Your task to perform on an android device: Open a new window in Chrome Image 0: 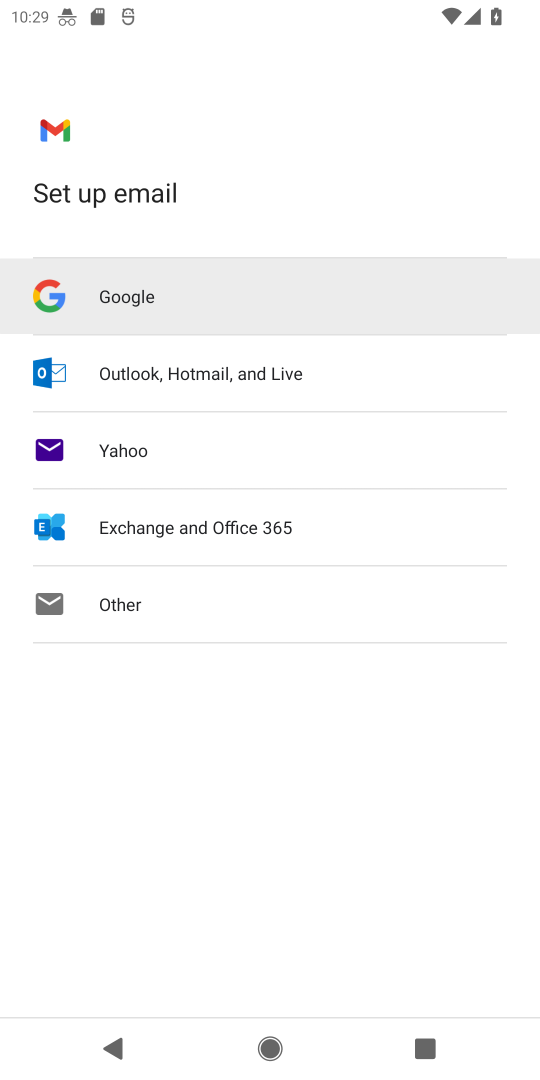
Step 0: press home button
Your task to perform on an android device: Open a new window in Chrome Image 1: 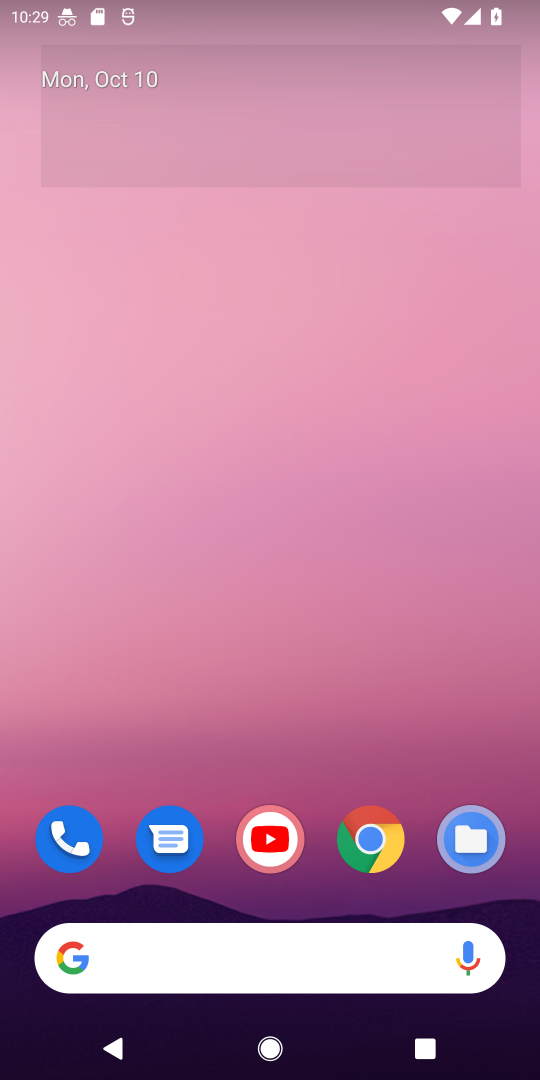
Step 1: drag from (316, 889) to (188, 218)
Your task to perform on an android device: Open a new window in Chrome Image 2: 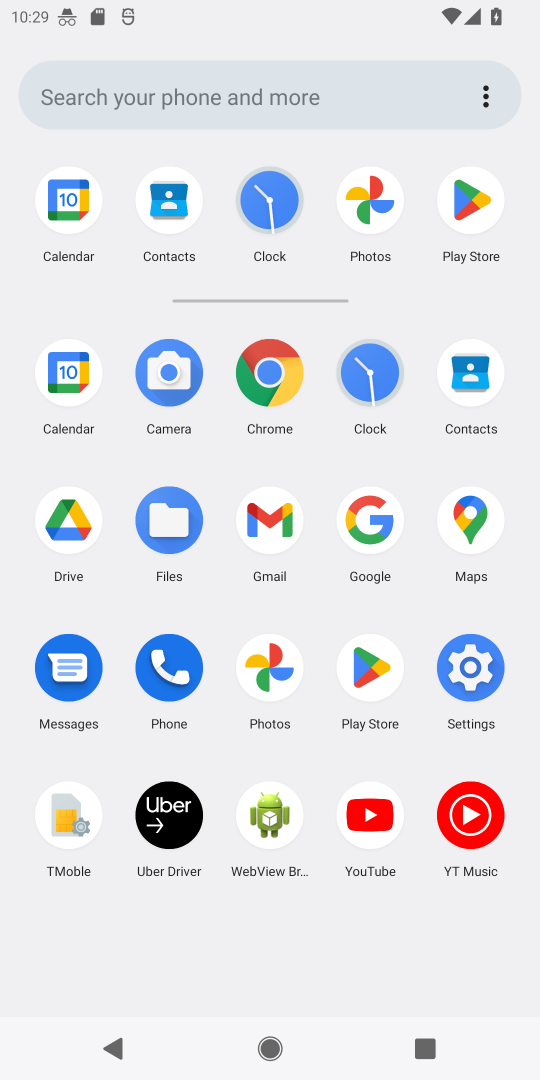
Step 2: click (281, 375)
Your task to perform on an android device: Open a new window in Chrome Image 3: 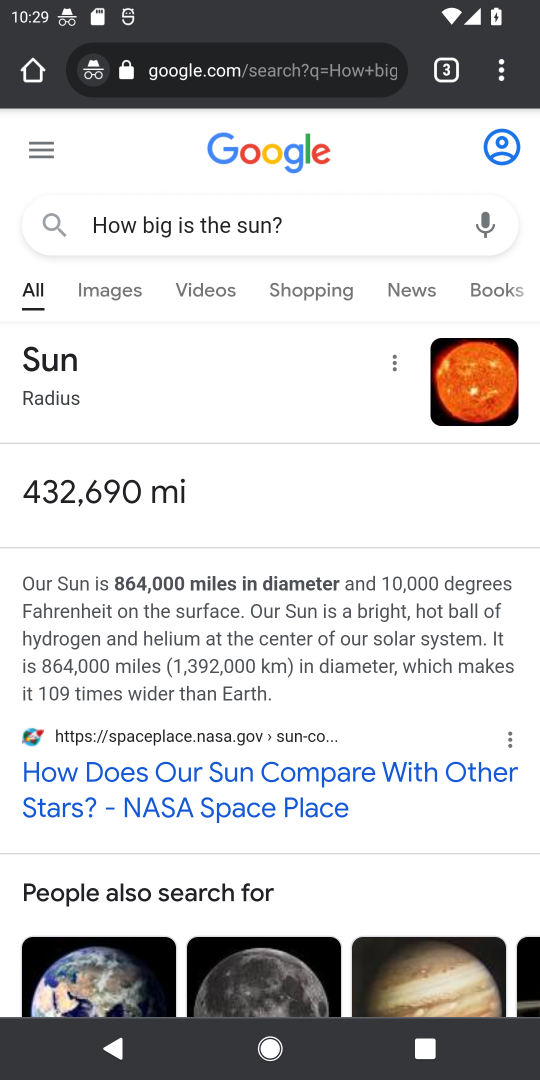
Step 3: task complete